Your task to perform on an android device: delete browsing data in the chrome app Image 0: 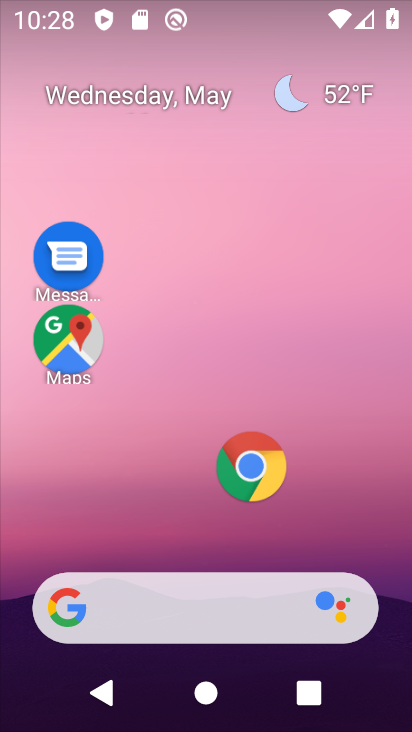
Step 0: click (251, 465)
Your task to perform on an android device: delete browsing data in the chrome app Image 1: 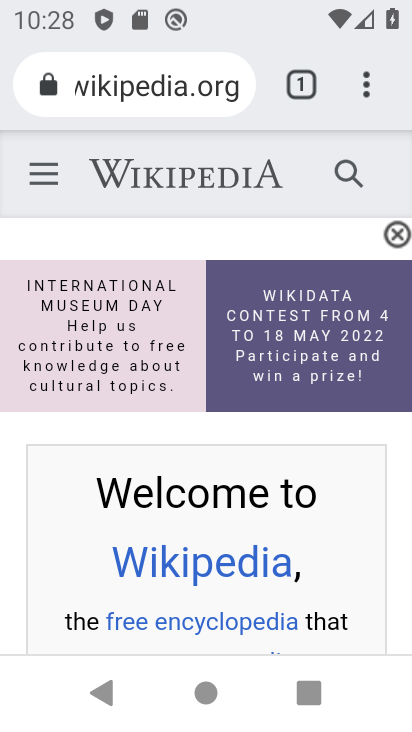
Step 1: click (361, 85)
Your task to perform on an android device: delete browsing data in the chrome app Image 2: 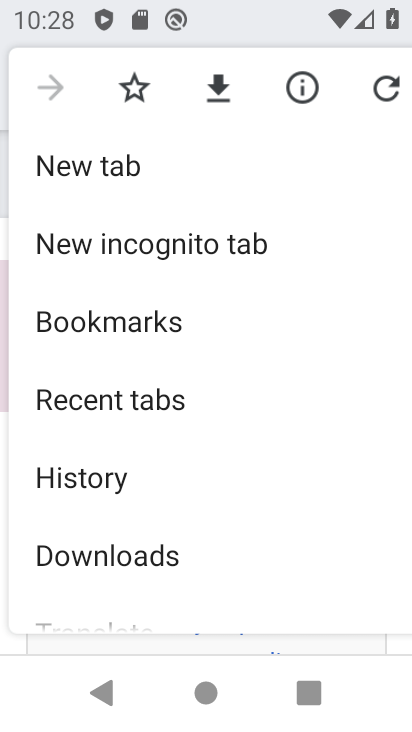
Step 2: drag from (169, 507) to (223, 97)
Your task to perform on an android device: delete browsing data in the chrome app Image 3: 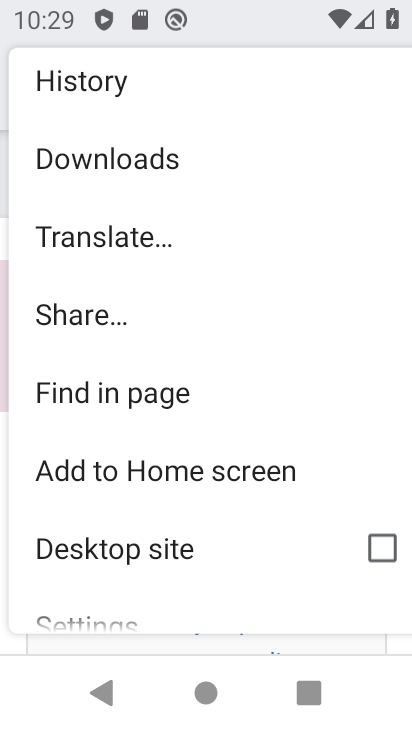
Step 3: drag from (171, 474) to (135, 339)
Your task to perform on an android device: delete browsing data in the chrome app Image 4: 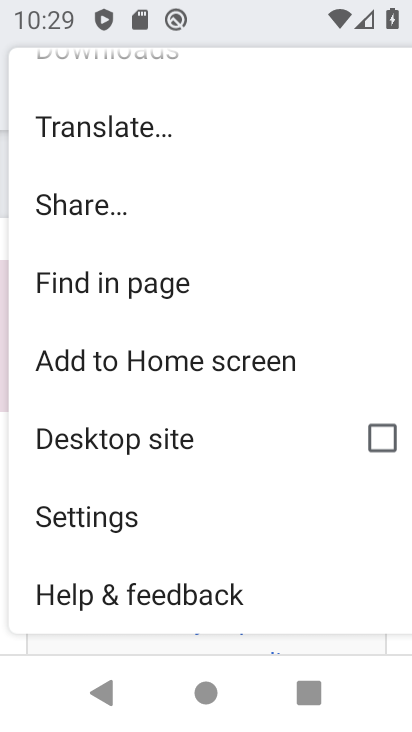
Step 4: click (118, 511)
Your task to perform on an android device: delete browsing data in the chrome app Image 5: 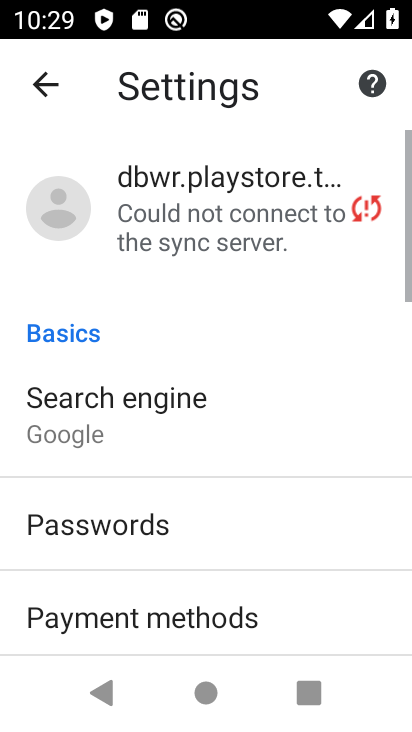
Step 5: drag from (143, 480) to (132, 78)
Your task to perform on an android device: delete browsing data in the chrome app Image 6: 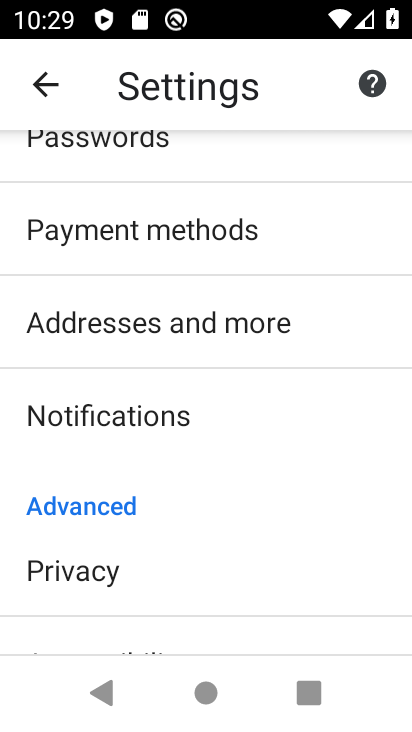
Step 6: click (85, 591)
Your task to perform on an android device: delete browsing data in the chrome app Image 7: 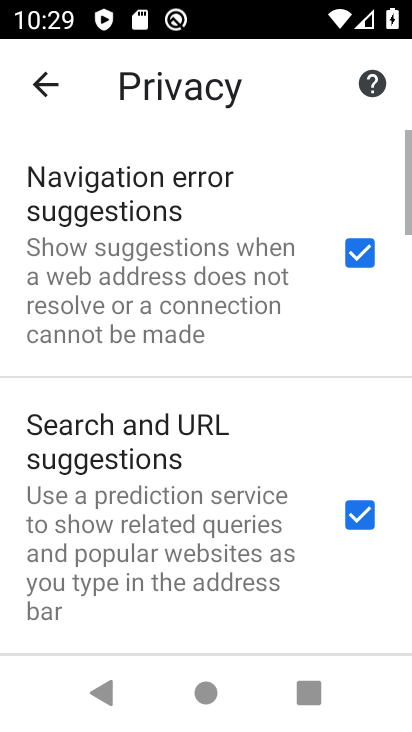
Step 7: drag from (220, 579) to (217, 117)
Your task to perform on an android device: delete browsing data in the chrome app Image 8: 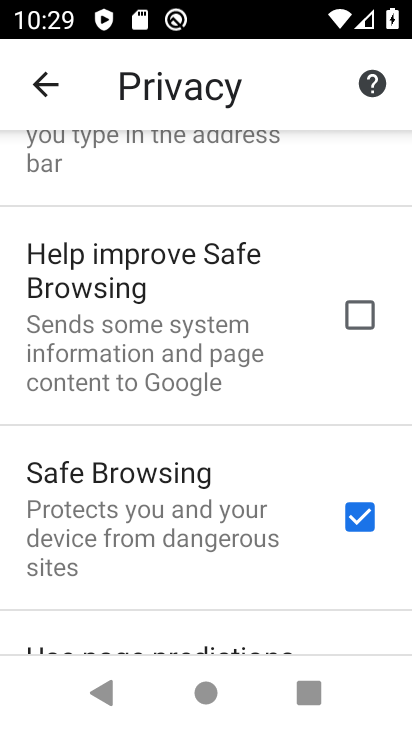
Step 8: drag from (227, 518) to (194, 73)
Your task to perform on an android device: delete browsing data in the chrome app Image 9: 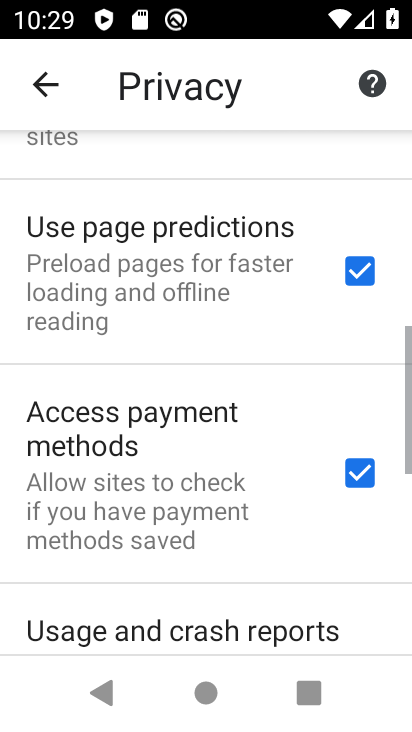
Step 9: drag from (240, 583) to (179, 143)
Your task to perform on an android device: delete browsing data in the chrome app Image 10: 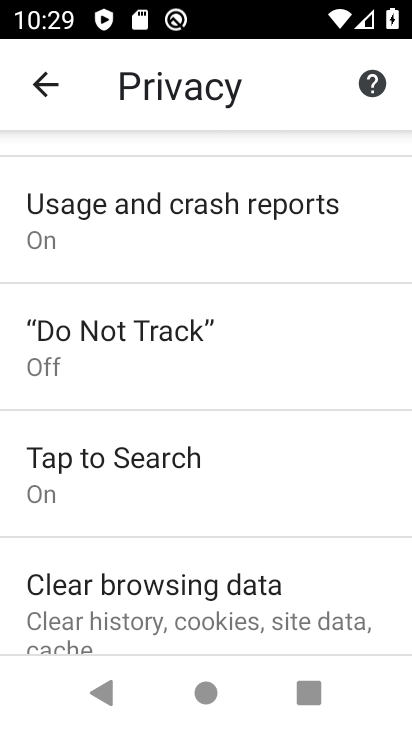
Step 10: drag from (127, 675) to (125, 473)
Your task to perform on an android device: delete browsing data in the chrome app Image 11: 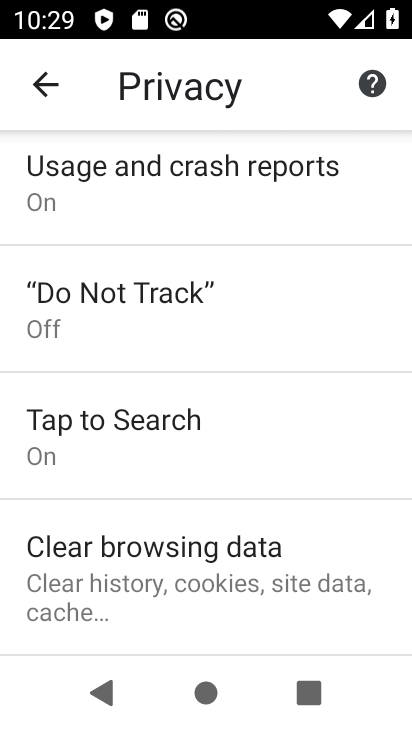
Step 11: click (197, 565)
Your task to perform on an android device: delete browsing data in the chrome app Image 12: 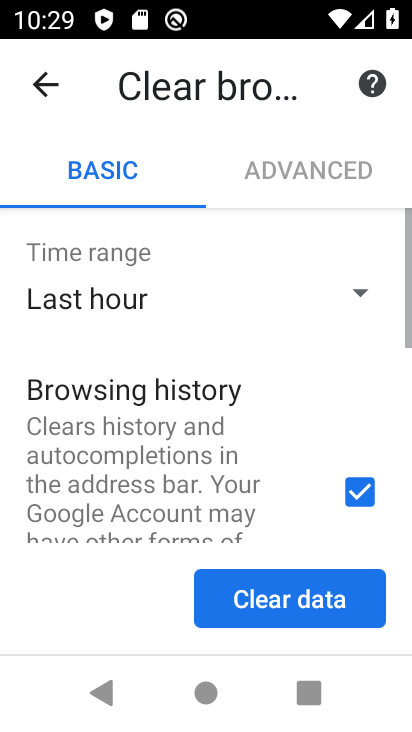
Step 12: drag from (309, 460) to (273, 265)
Your task to perform on an android device: delete browsing data in the chrome app Image 13: 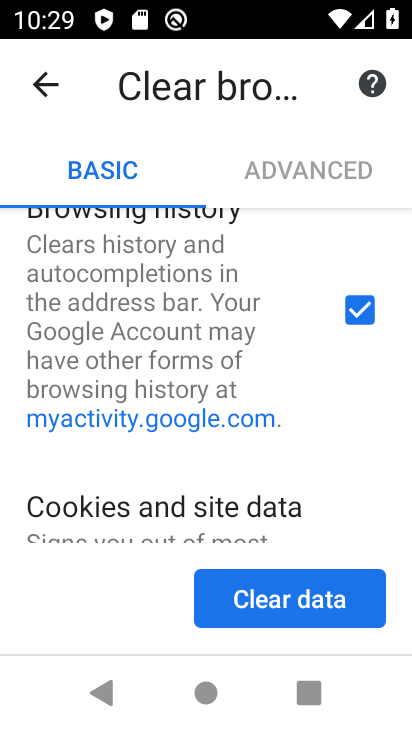
Step 13: drag from (310, 479) to (295, 205)
Your task to perform on an android device: delete browsing data in the chrome app Image 14: 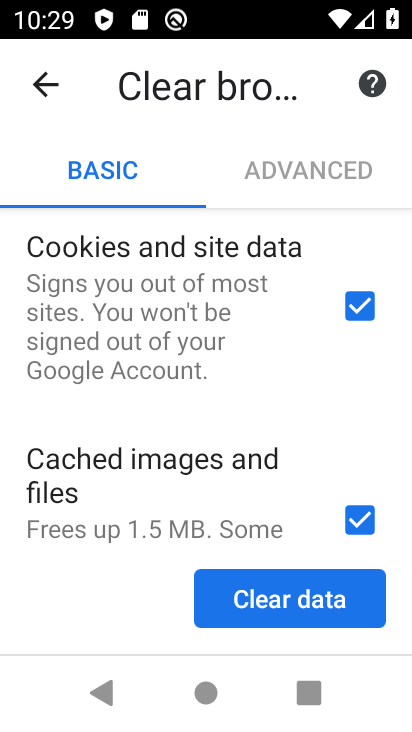
Step 14: click (354, 292)
Your task to perform on an android device: delete browsing data in the chrome app Image 15: 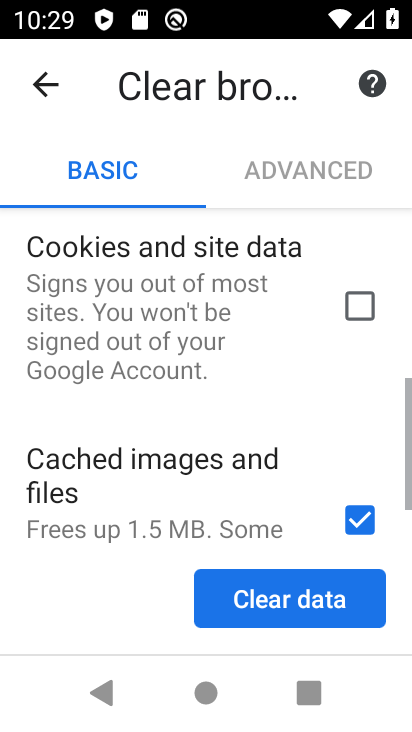
Step 15: click (357, 526)
Your task to perform on an android device: delete browsing data in the chrome app Image 16: 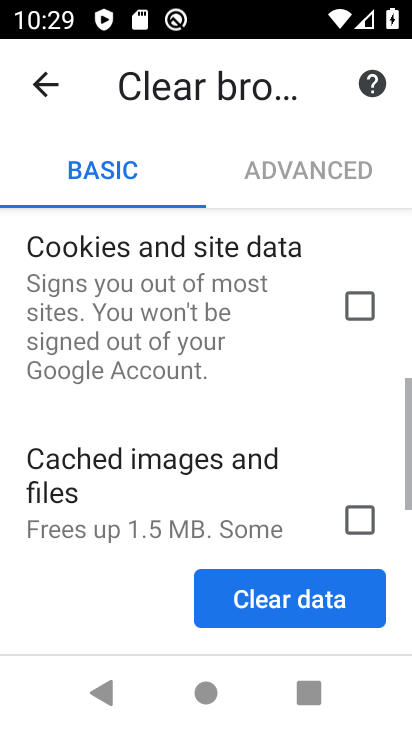
Step 16: click (284, 610)
Your task to perform on an android device: delete browsing data in the chrome app Image 17: 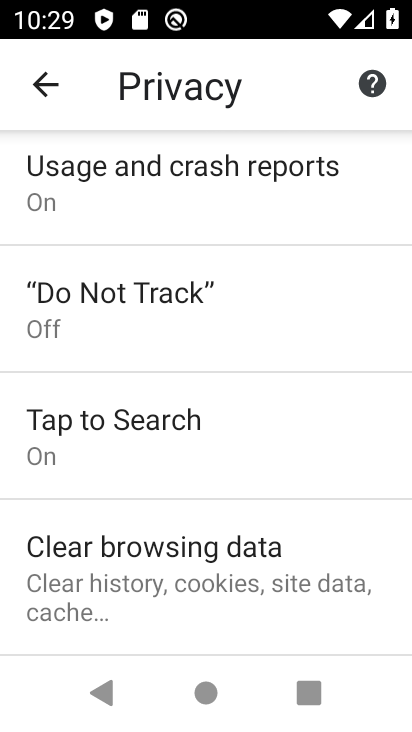
Step 17: task complete